Your task to perform on an android device: check android version Image 0: 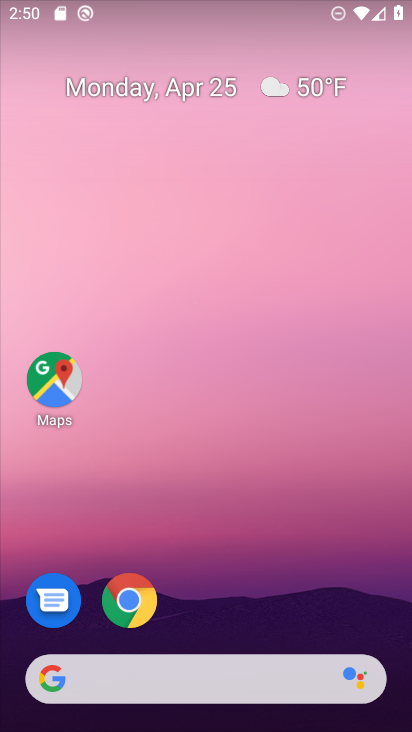
Step 0: drag from (231, 651) to (264, 109)
Your task to perform on an android device: check android version Image 1: 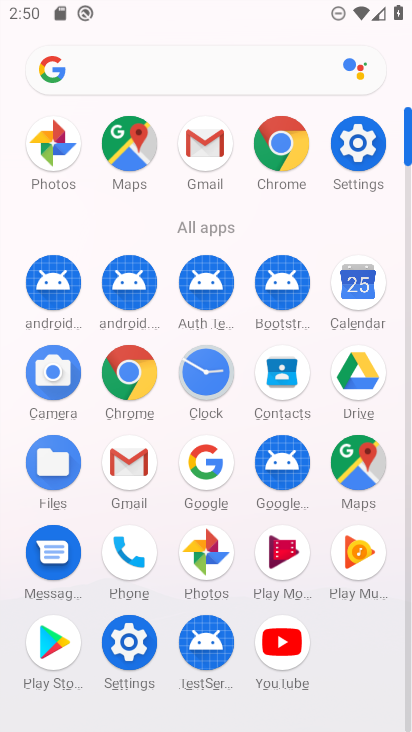
Step 1: click (354, 162)
Your task to perform on an android device: check android version Image 2: 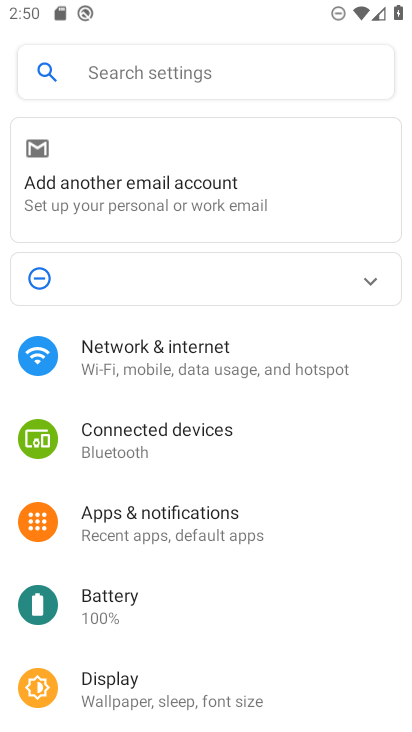
Step 2: drag from (216, 587) to (190, 144)
Your task to perform on an android device: check android version Image 3: 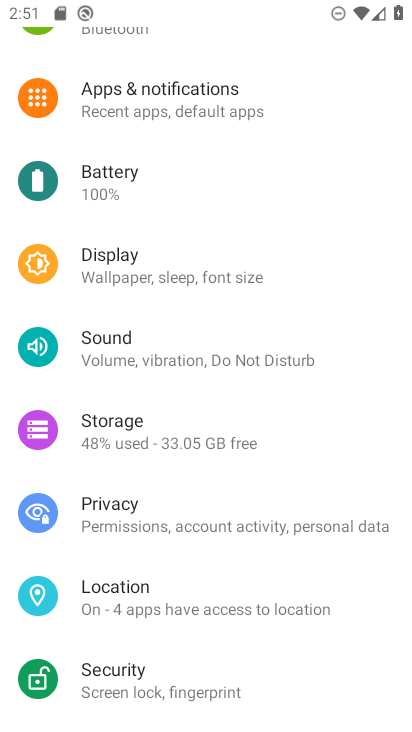
Step 3: drag from (206, 673) to (182, 127)
Your task to perform on an android device: check android version Image 4: 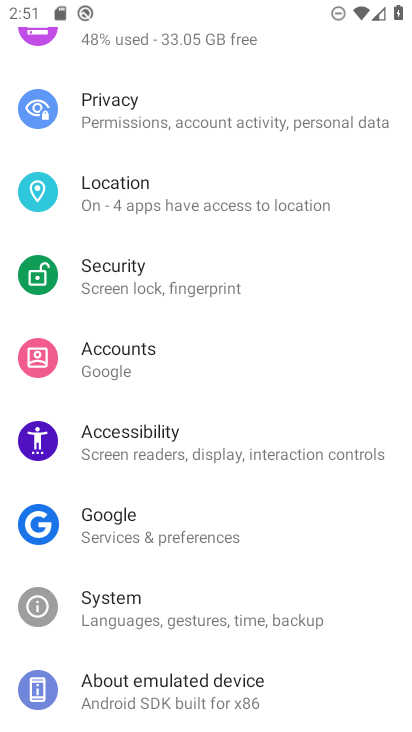
Step 4: click (148, 677)
Your task to perform on an android device: check android version Image 5: 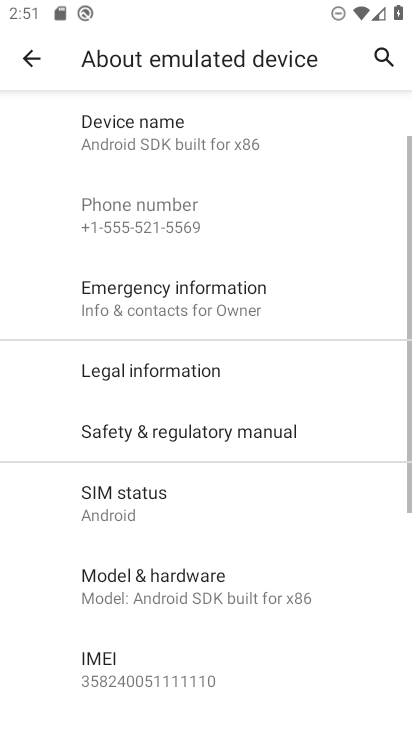
Step 5: drag from (163, 580) to (152, 259)
Your task to perform on an android device: check android version Image 6: 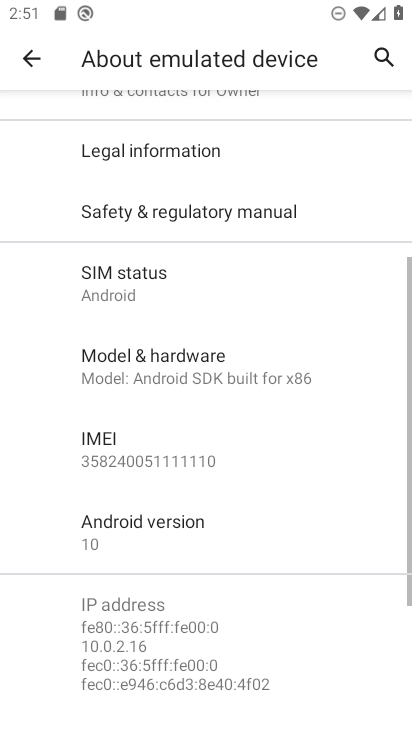
Step 6: click (141, 521)
Your task to perform on an android device: check android version Image 7: 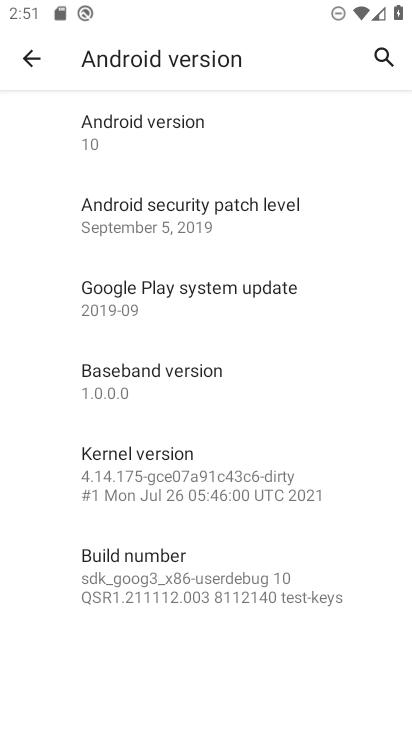
Step 7: click (138, 100)
Your task to perform on an android device: check android version Image 8: 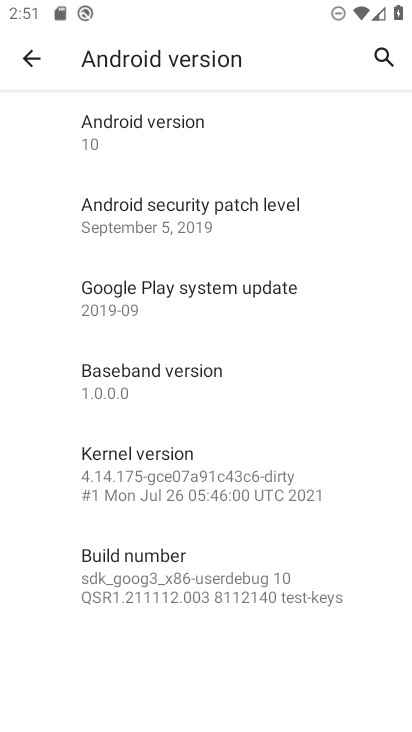
Step 8: task complete